Your task to perform on an android device: Is it going to rain this weekend? Image 0: 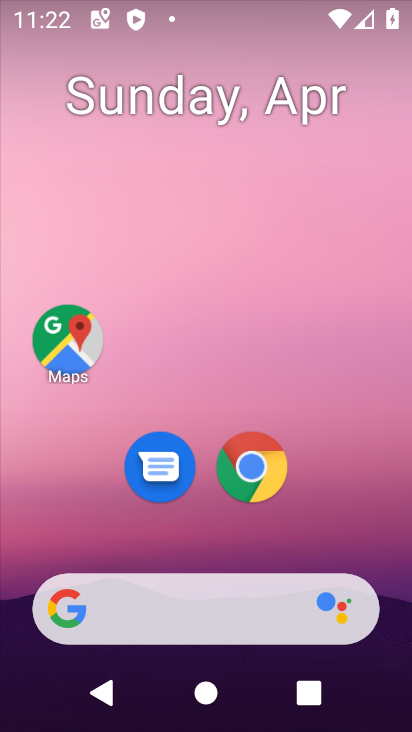
Step 0: click (279, 61)
Your task to perform on an android device: Is it going to rain this weekend? Image 1: 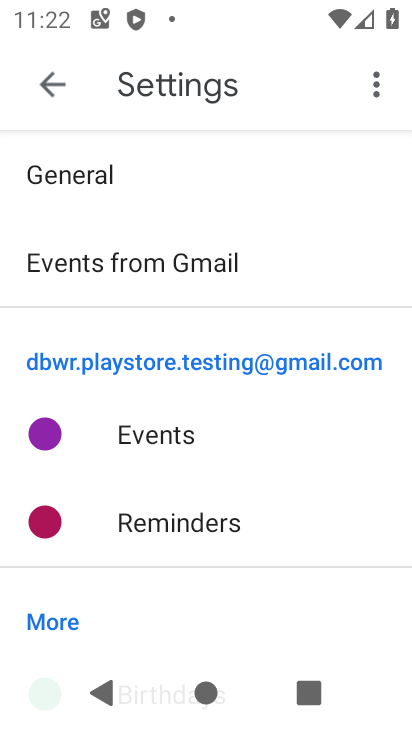
Step 1: press enter
Your task to perform on an android device: Is it going to rain this weekend? Image 2: 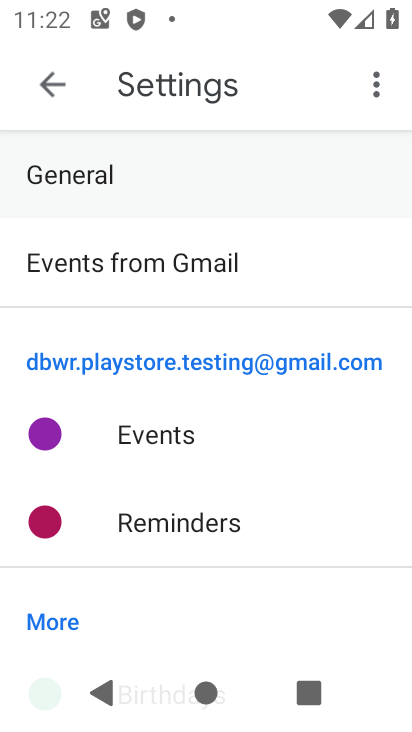
Step 2: press home button
Your task to perform on an android device: Is it going to rain this weekend? Image 3: 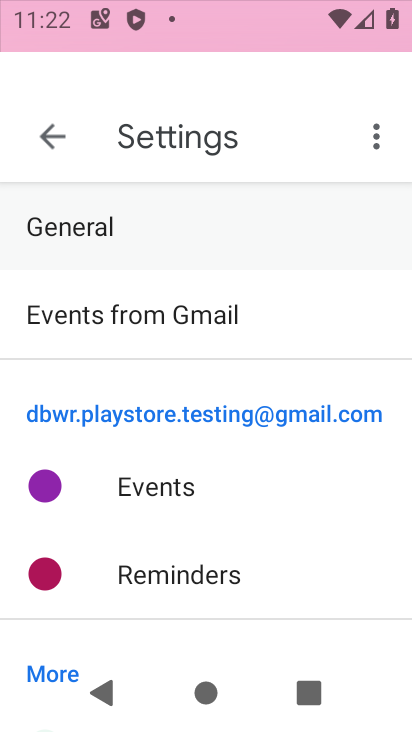
Step 3: press home button
Your task to perform on an android device: Is it going to rain this weekend? Image 4: 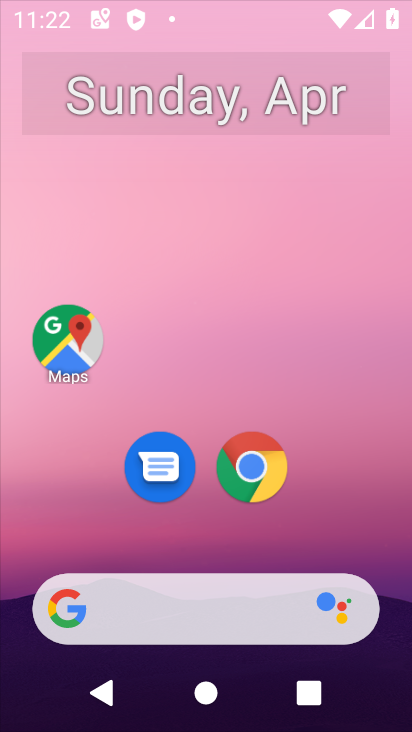
Step 4: press home button
Your task to perform on an android device: Is it going to rain this weekend? Image 5: 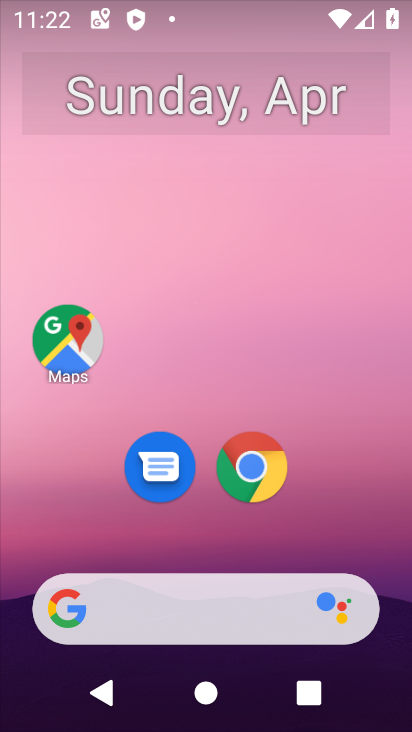
Step 5: drag from (224, 416) to (265, 201)
Your task to perform on an android device: Is it going to rain this weekend? Image 6: 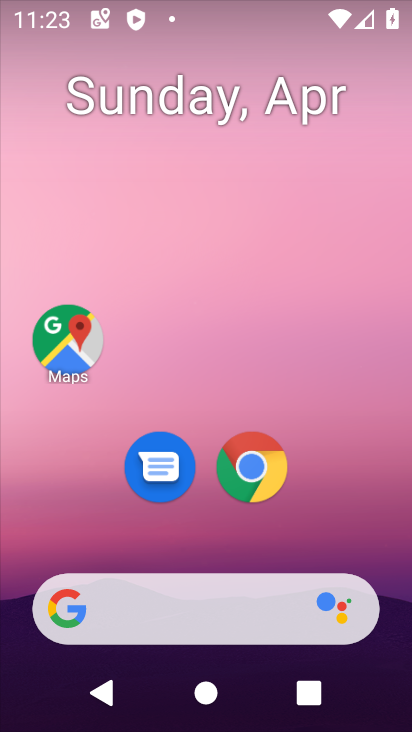
Step 6: click (209, 623)
Your task to perform on an android device: Is it going to rain this weekend? Image 7: 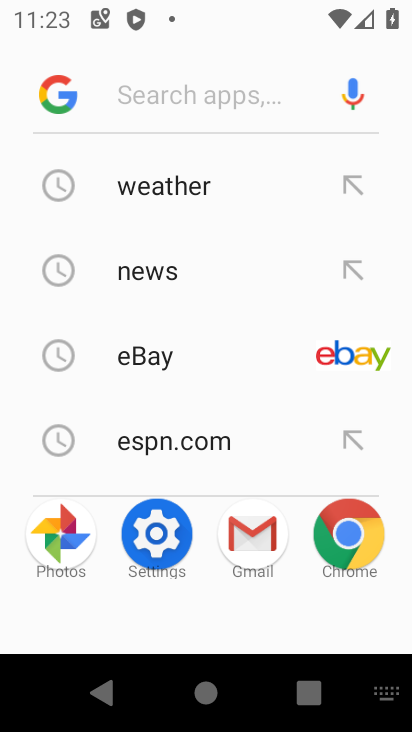
Step 7: drag from (217, 466) to (231, 266)
Your task to perform on an android device: Is it going to rain this weekend? Image 8: 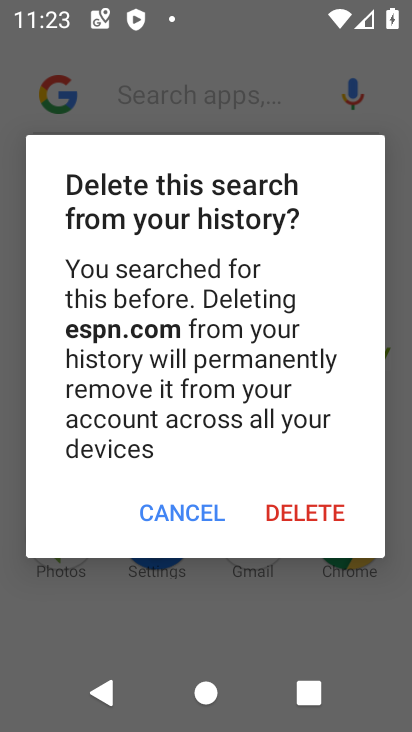
Step 8: click (173, 515)
Your task to perform on an android device: Is it going to rain this weekend? Image 9: 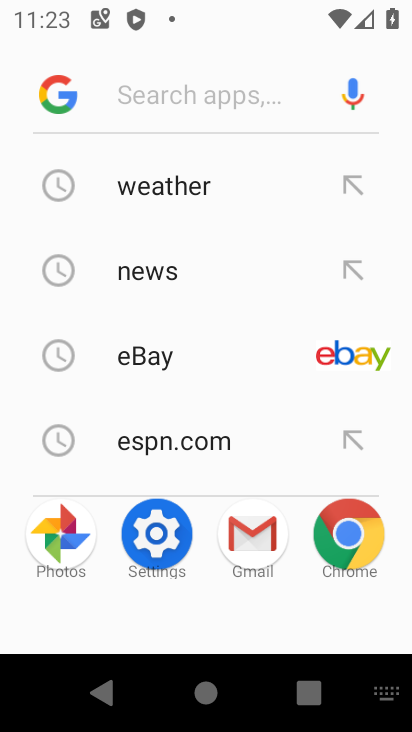
Step 9: drag from (172, 380) to (265, 102)
Your task to perform on an android device: Is it going to rain this weekend? Image 10: 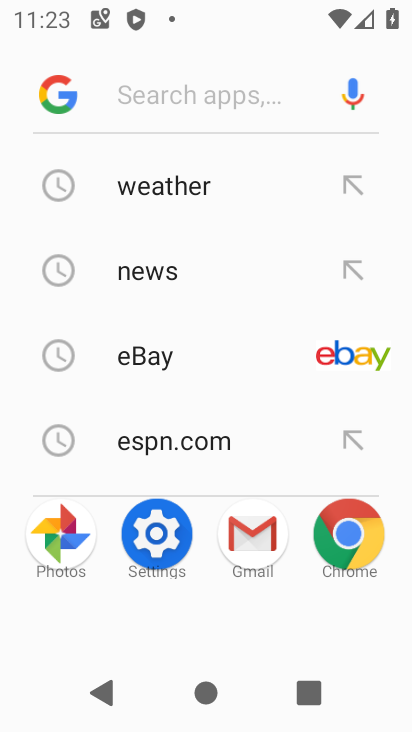
Step 10: click (178, 96)
Your task to perform on an android device: Is it going to rain this weekend? Image 11: 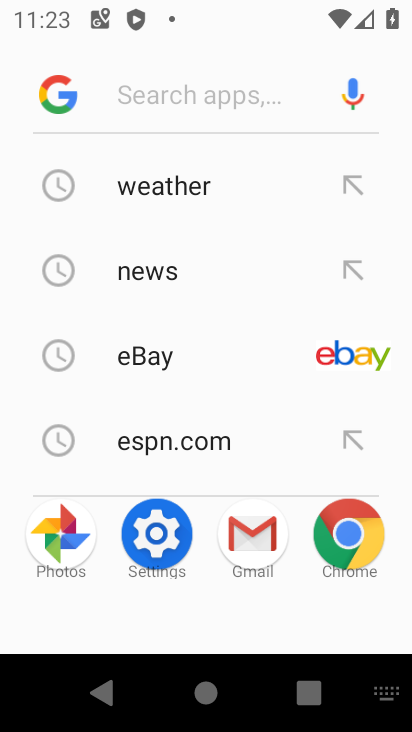
Step 11: type "rain this weekend"
Your task to perform on an android device: Is it going to rain this weekend? Image 12: 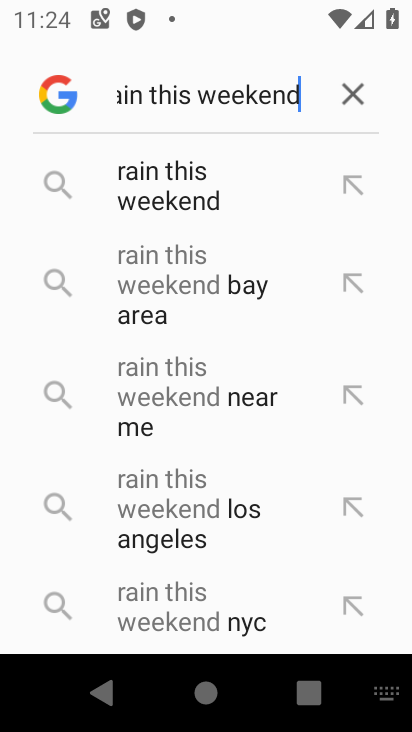
Step 12: click (210, 206)
Your task to perform on an android device: Is it going to rain this weekend? Image 13: 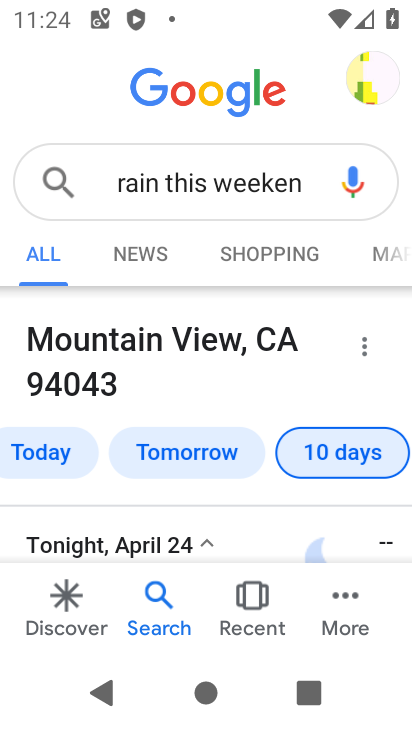
Step 13: task complete